Your task to perform on an android device: Go to CNN.com Image 0: 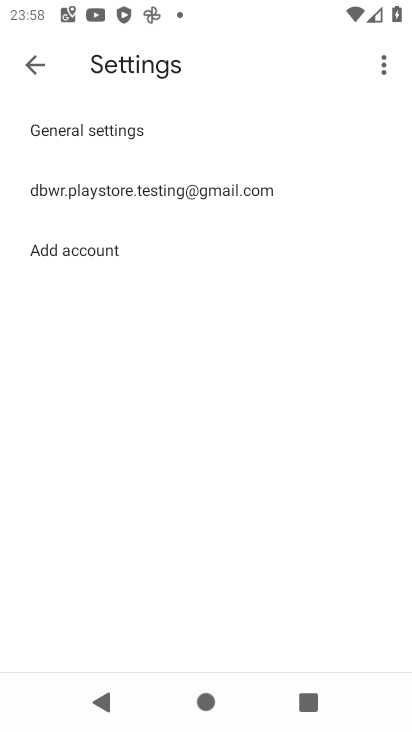
Step 0: press home button
Your task to perform on an android device: Go to CNN.com Image 1: 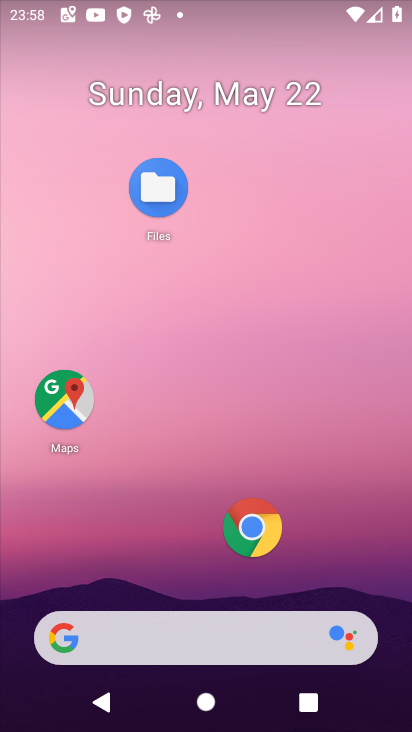
Step 1: click (249, 525)
Your task to perform on an android device: Go to CNN.com Image 2: 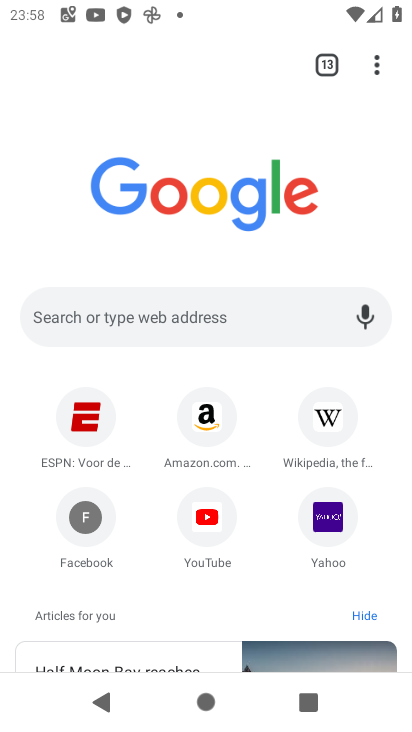
Step 2: click (192, 302)
Your task to perform on an android device: Go to CNN.com Image 3: 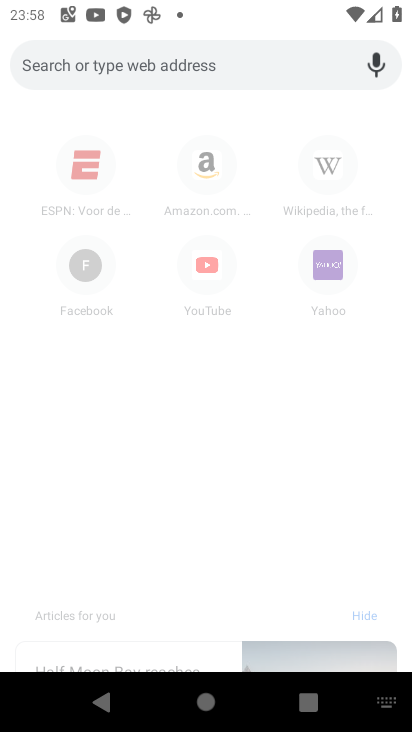
Step 3: type "cnn.com"
Your task to perform on an android device: Go to CNN.com Image 4: 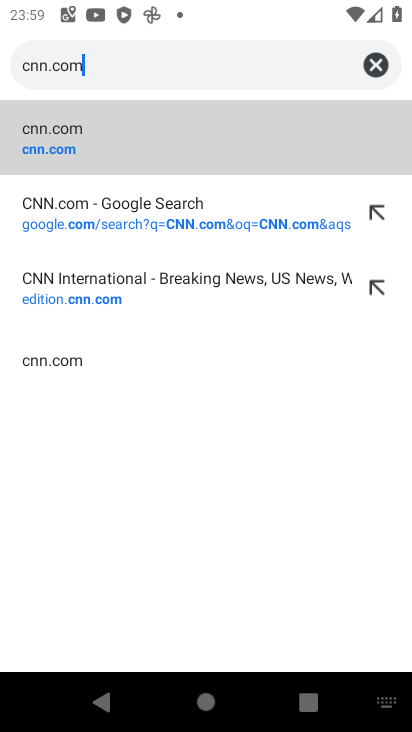
Step 4: click (50, 125)
Your task to perform on an android device: Go to CNN.com Image 5: 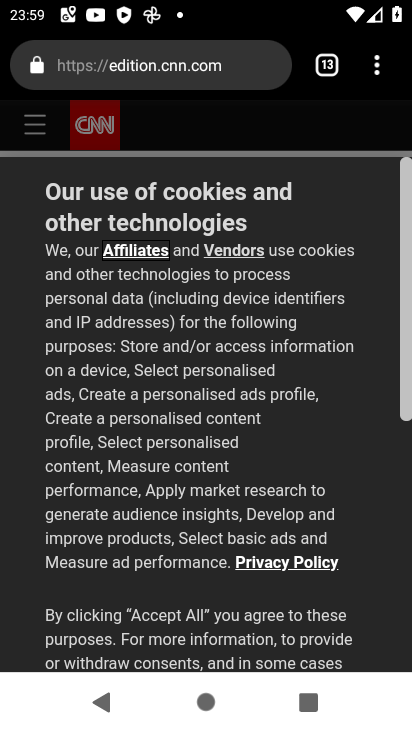
Step 5: task complete